Your task to perform on an android device: Play the last video I watched on Youtube Image 0: 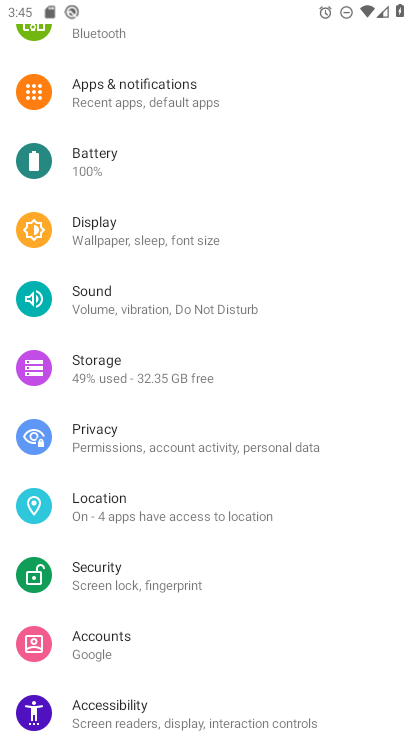
Step 0: press home button
Your task to perform on an android device: Play the last video I watched on Youtube Image 1: 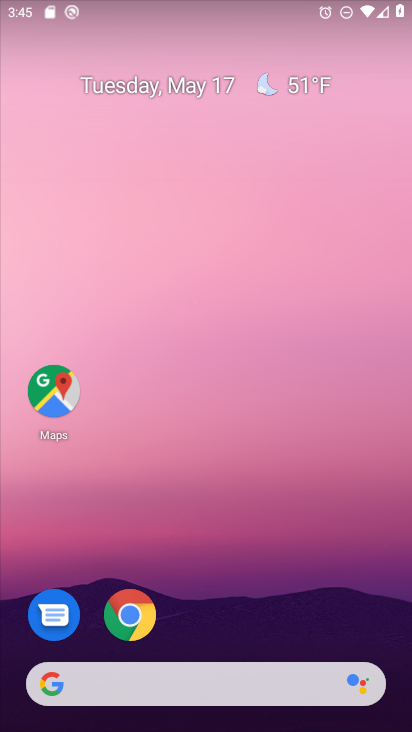
Step 1: drag from (227, 615) to (262, 81)
Your task to perform on an android device: Play the last video I watched on Youtube Image 2: 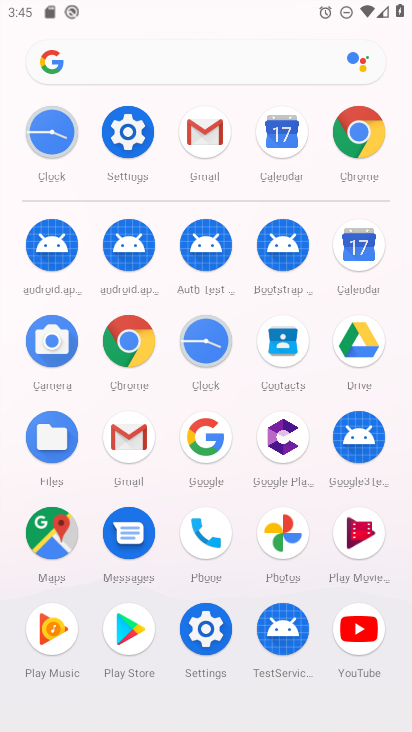
Step 2: click (350, 618)
Your task to perform on an android device: Play the last video I watched on Youtube Image 3: 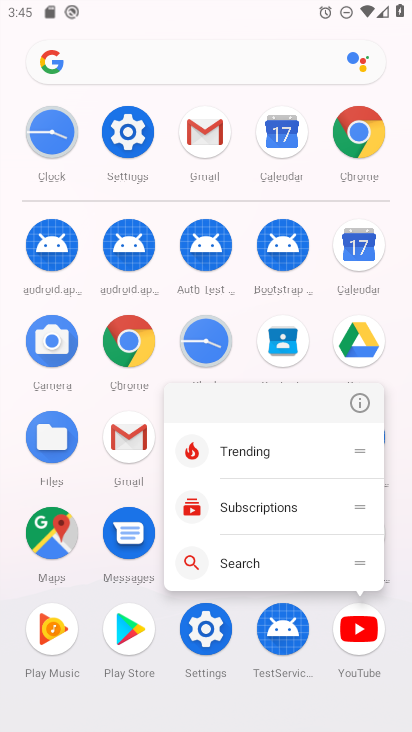
Step 3: click (357, 623)
Your task to perform on an android device: Play the last video I watched on Youtube Image 4: 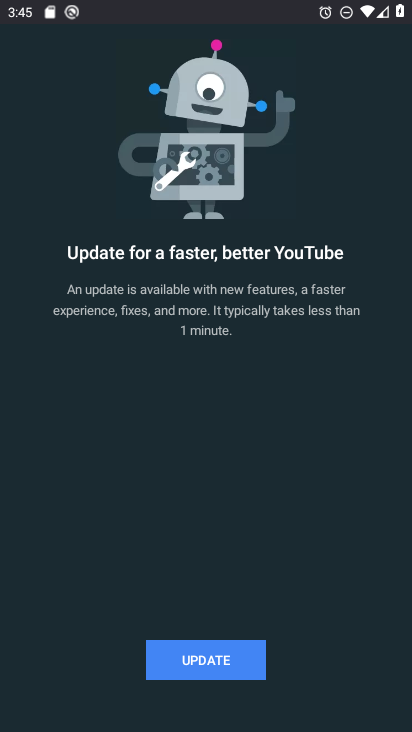
Step 4: click (212, 659)
Your task to perform on an android device: Play the last video I watched on Youtube Image 5: 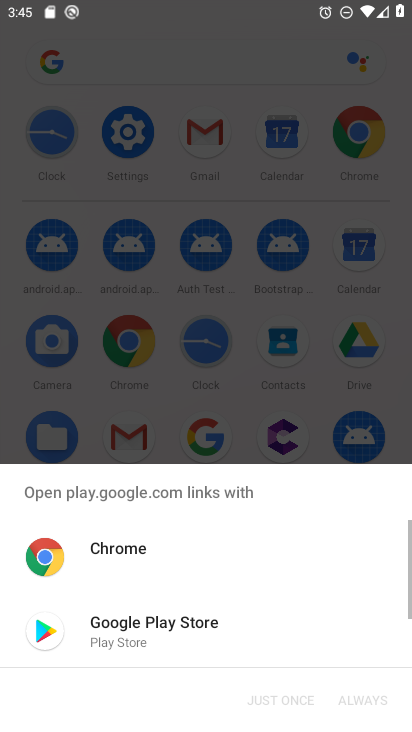
Step 5: click (126, 637)
Your task to perform on an android device: Play the last video I watched on Youtube Image 6: 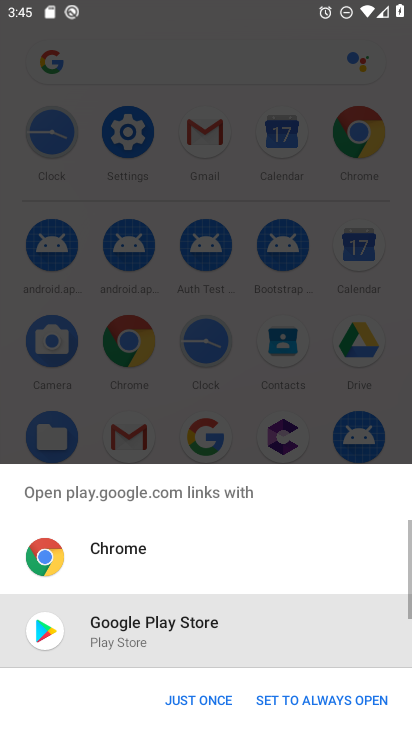
Step 6: click (201, 694)
Your task to perform on an android device: Play the last video I watched on Youtube Image 7: 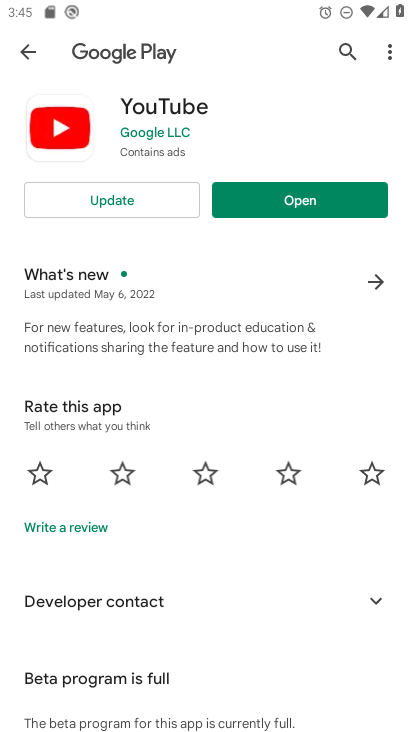
Step 7: click (117, 188)
Your task to perform on an android device: Play the last video I watched on Youtube Image 8: 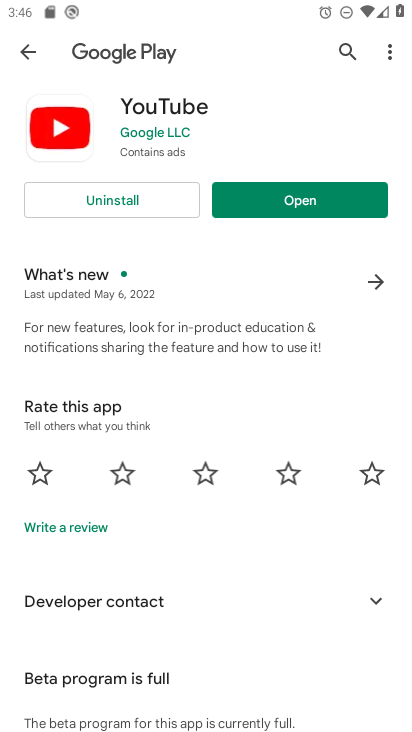
Step 8: click (302, 199)
Your task to perform on an android device: Play the last video I watched on Youtube Image 9: 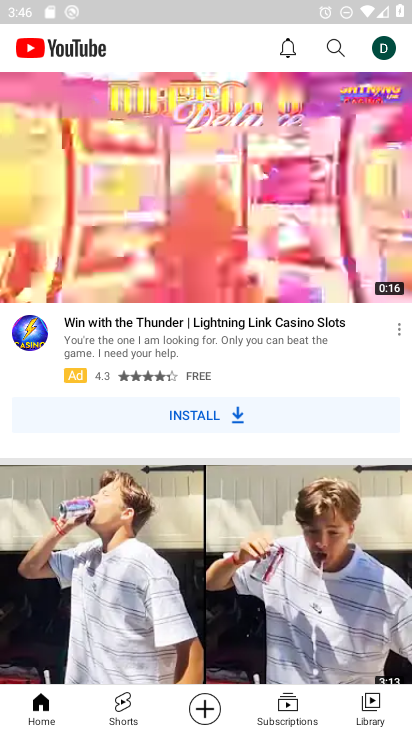
Step 9: click (364, 693)
Your task to perform on an android device: Play the last video I watched on Youtube Image 10: 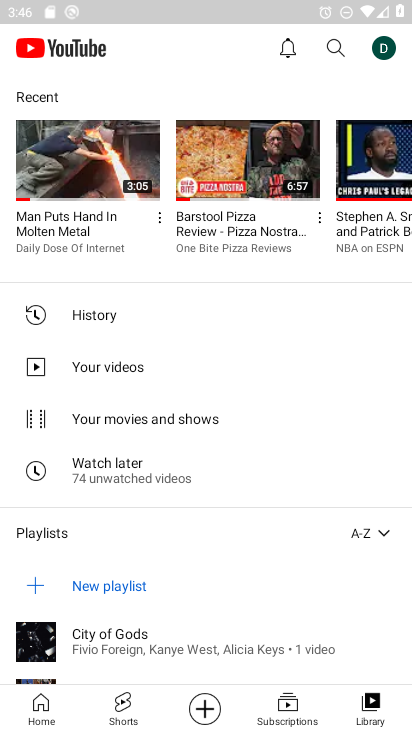
Step 10: click (57, 158)
Your task to perform on an android device: Play the last video I watched on Youtube Image 11: 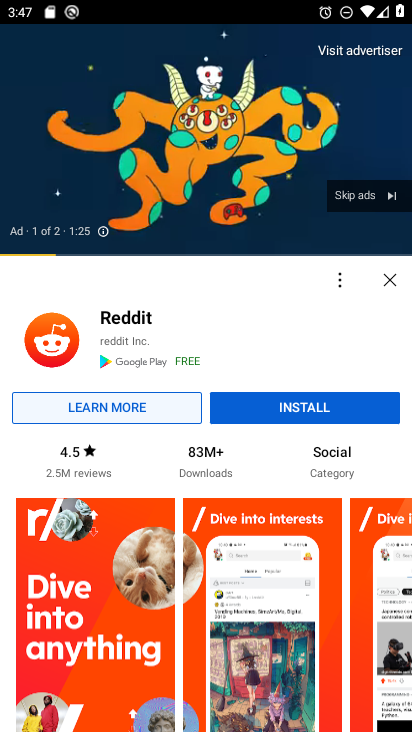
Step 11: click (361, 188)
Your task to perform on an android device: Play the last video I watched on Youtube Image 12: 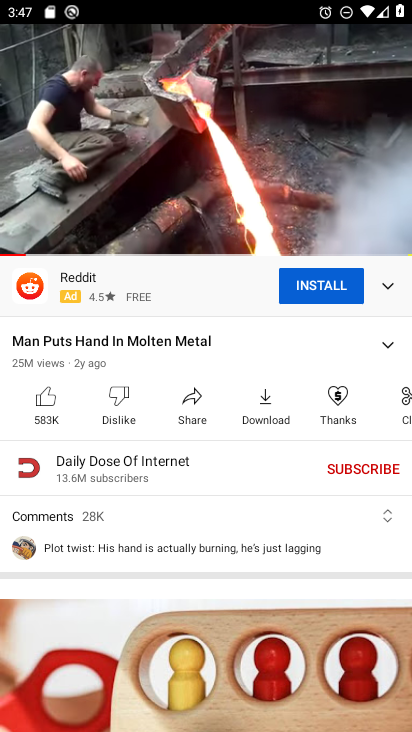
Step 12: task complete